Your task to perform on an android device: Is it going to rain today? Image 0: 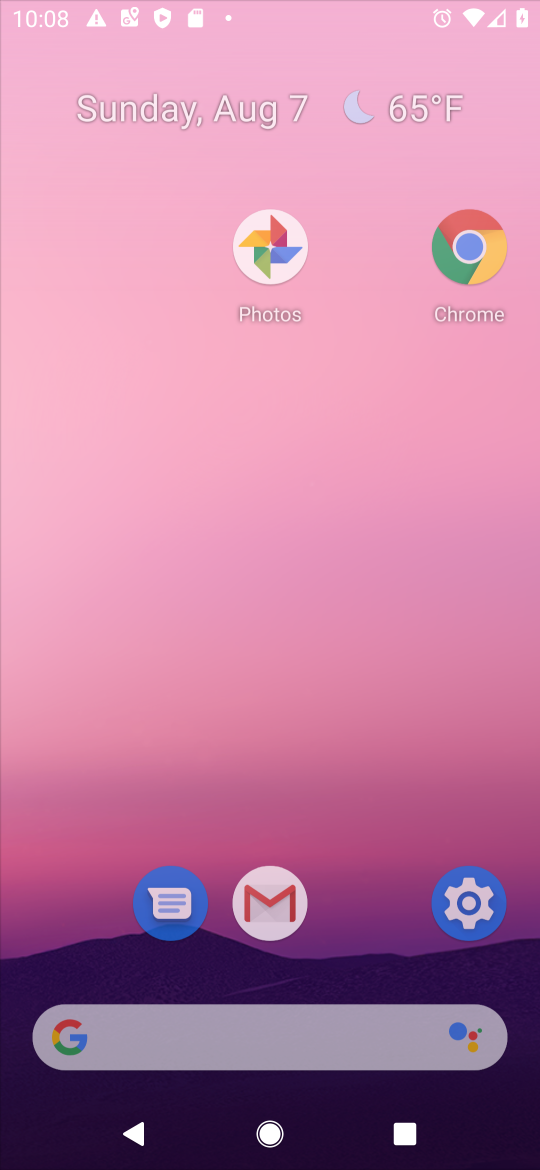
Step 0: press home button
Your task to perform on an android device: Is it going to rain today? Image 1: 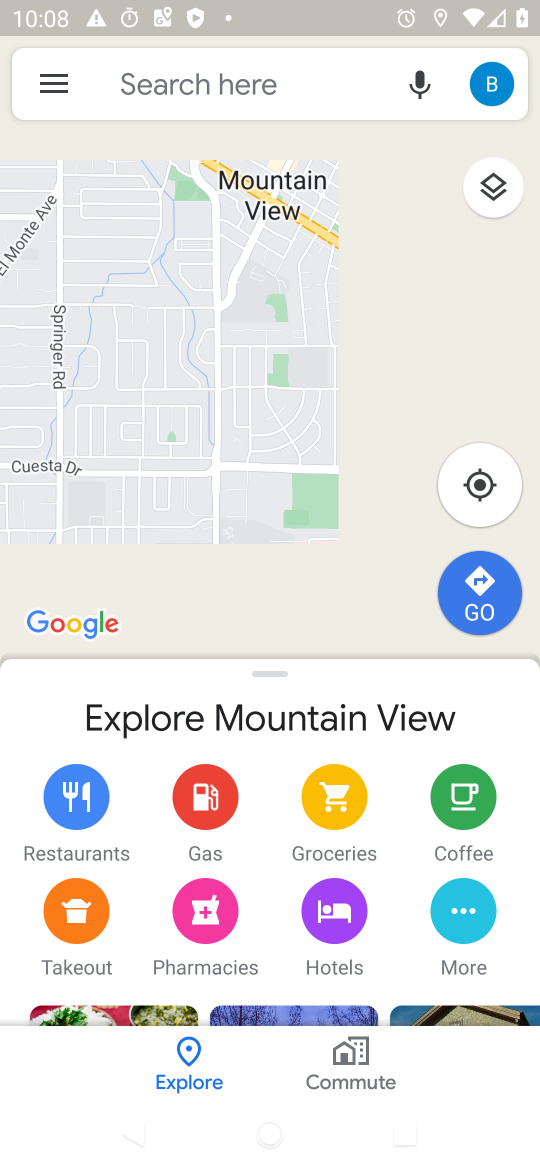
Step 1: drag from (365, 555) to (376, 426)
Your task to perform on an android device: Is it going to rain today? Image 2: 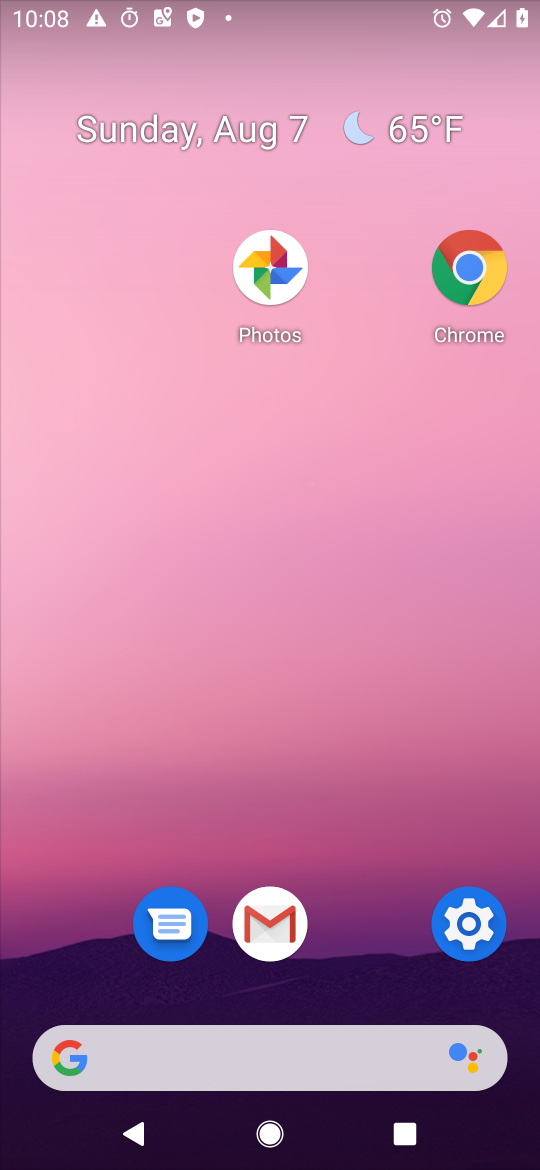
Step 2: click (216, 1086)
Your task to perform on an android device: Is it going to rain today? Image 3: 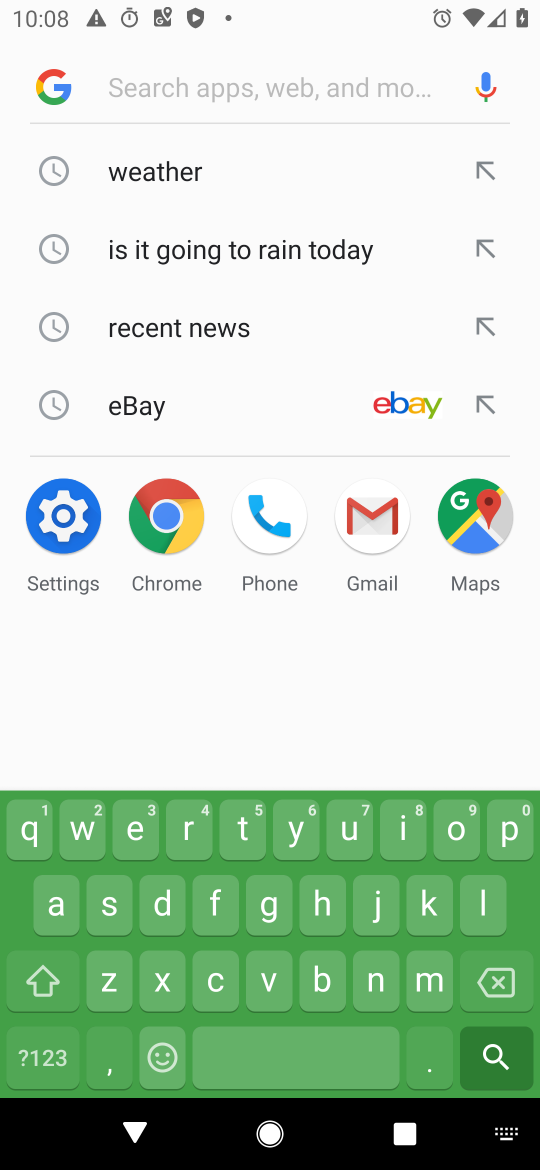
Step 3: click (285, 239)
Your task to perform on an android device: Is it going to rain today? Image 4: 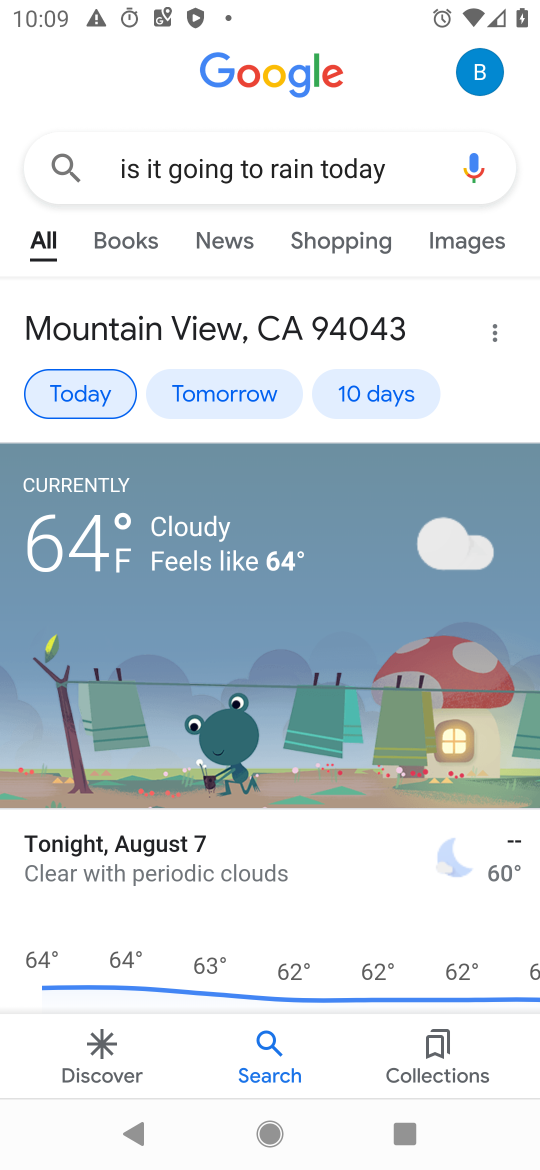
Step 4: task complete